Your task to perform on an android device: open a bookmark in the chrome app Image 0: 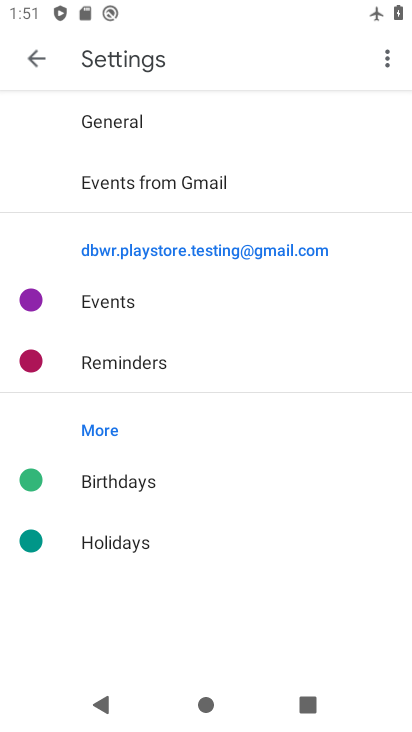
Step 0: press home button
Your task to perform on an android device: open a bookmark in the chrome app Image 1: 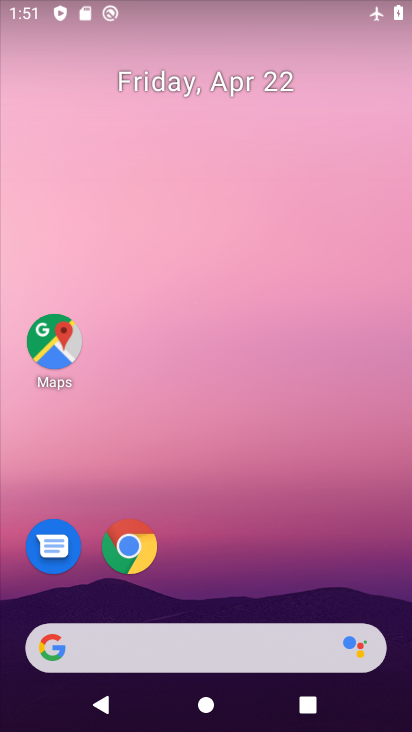
Step 1: click (132, 551)
Your task to perform on an android device: open a bookmark in the chrome app Image 2: 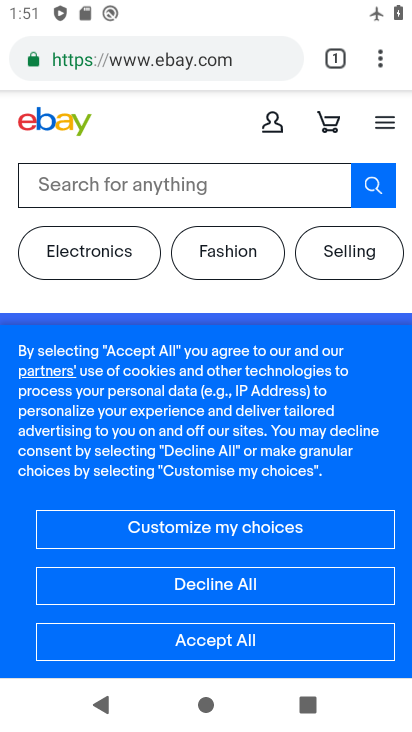
Step 2: click (373, 61)
Your task to perform on an android device: open a bookmark in the chrome app Image 3: 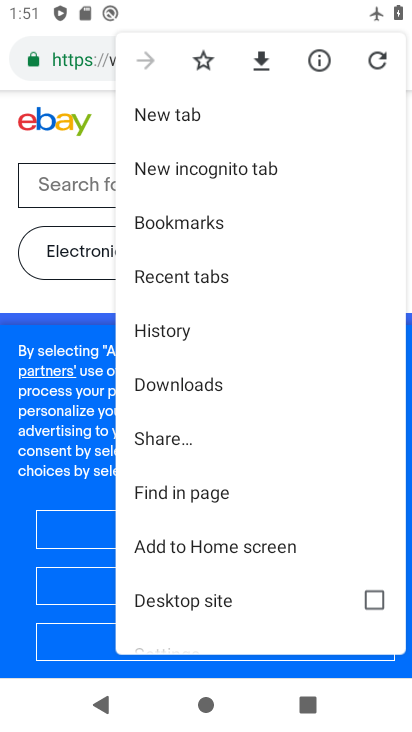
Step 3: click (217, 224)
Your task to perform on an android device: open a bookmark in the chrome app Image 4: 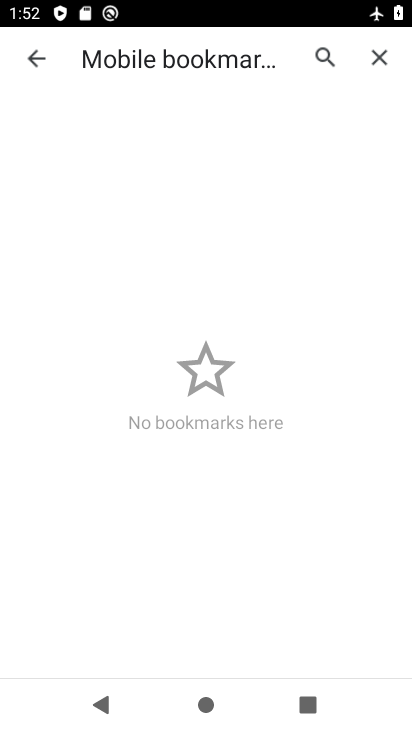
Step 4: task complete